Your task to perform on an android device: Look up the best rated gaming chairs on Target. Image 0: 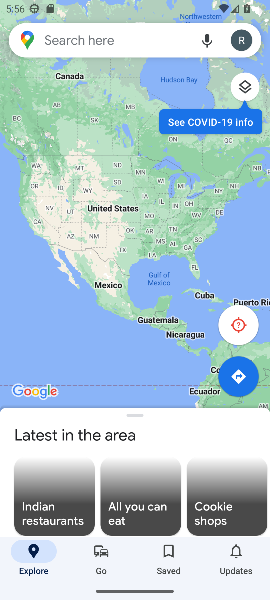
Step 0: press home button
Your task to perform on an android device: Look up the best rated gaming chairs on Target. Image 1: 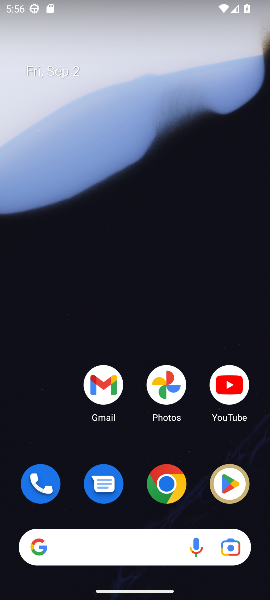
Step 1: click (170, 485)
Your task to perform on an android device: Look up the best rated gaming chairs on Target. Image 2: 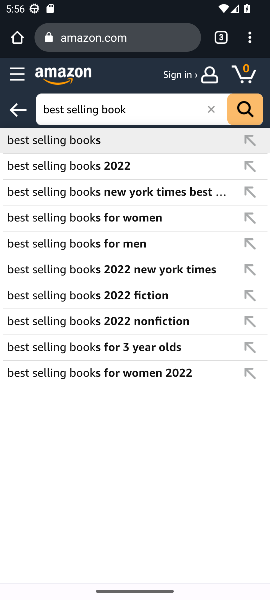
Step 2: click (210, 107)
Your task to perform on an android device: Look up the best rated gaming chairs on Target. Image 3: 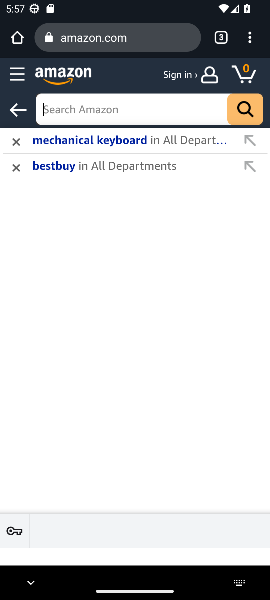
Step 3: click (172, 35)
Your task to perform on an android device: Look up the best rated gaming chairs on Target. Image 4: 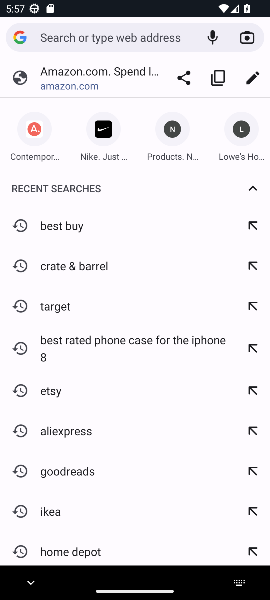
Step 4: type "Target"
Your task to perform on an android device: Look up the best rated gaming chairs on Target. Image 5: 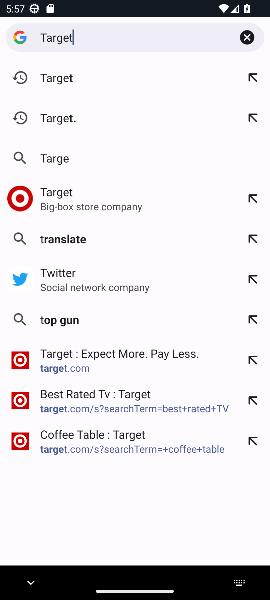
Step 5: press enter
Your task to perform on an android device: Look up the best rated gaming chairs on Target. Image 6: 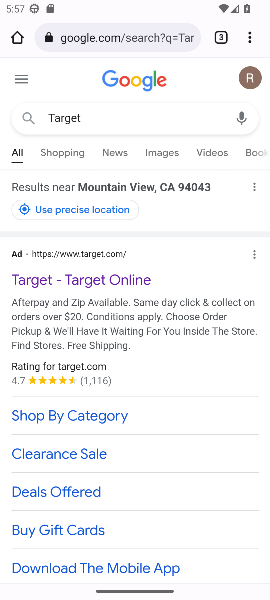
Step 6: click (103, 280)
Your task to perform on an android device: Look up the best rated gaming chairs on Target. Image 7: 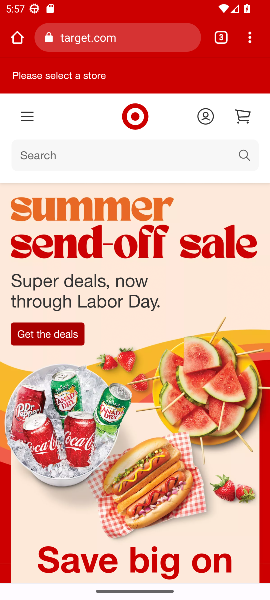
Step 7: click (243, 149)
Your task to perform on an android device: Look up the best rated gaming chairs on Target. Image 8: 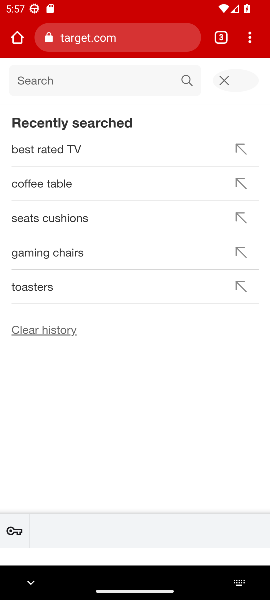
Step 8: type " best rated gaming chairs "
Your task to perform on an android device: Look up the best rated gaming chairs on Target. Image 9: 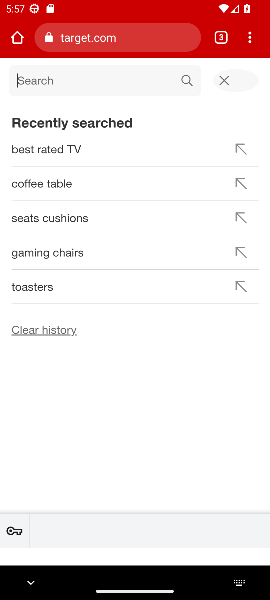
Step 9: press enter
Your task to perform on an android device: Look up the best rated gaming chairs on Target. Image 10: 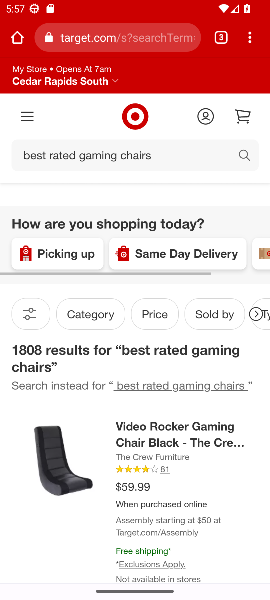
Step 10: task complete